Your task to perform on an android device: Go to location settings Image 0: 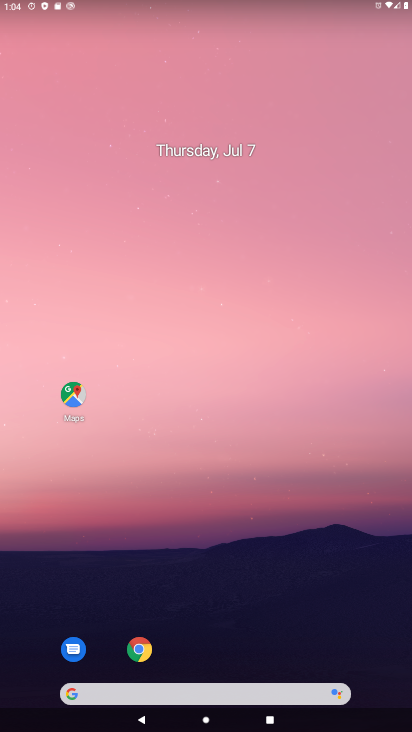
Step 0: click (126, 72)
Your task to perform on an android device: Go to location settings Image 1: 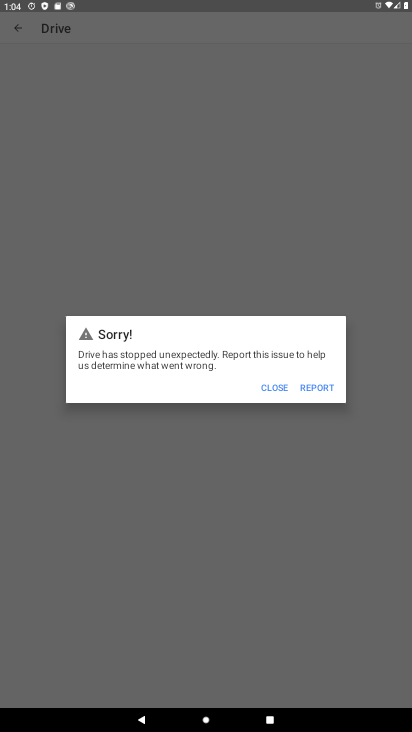
Step 1: click (277, 384)
Your task to perform on an android device: Go to location settings Image 2: 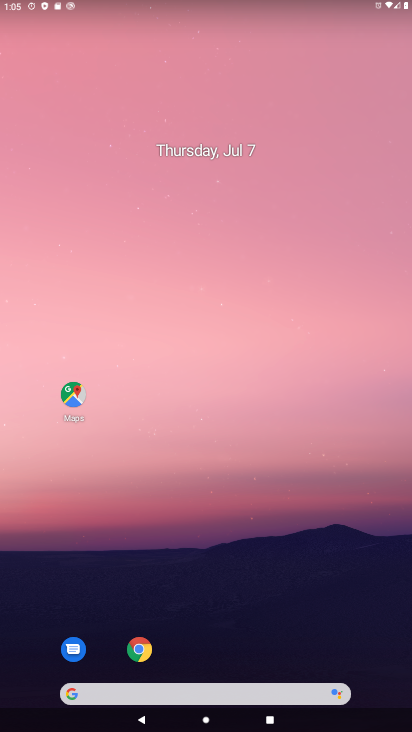
Step 2: drag from (223, 663) to (134, 261)
Your task to perform on an android device: Go to location settings Image 3: 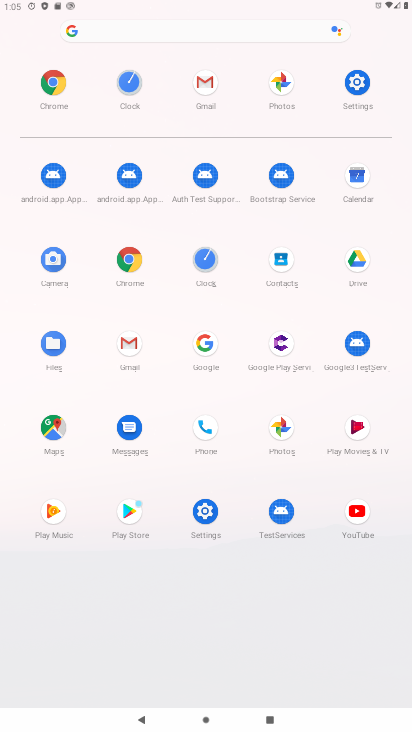
Step 3: click (195, 516)
Your task to perform on an android device: Go to location settings Image 4: 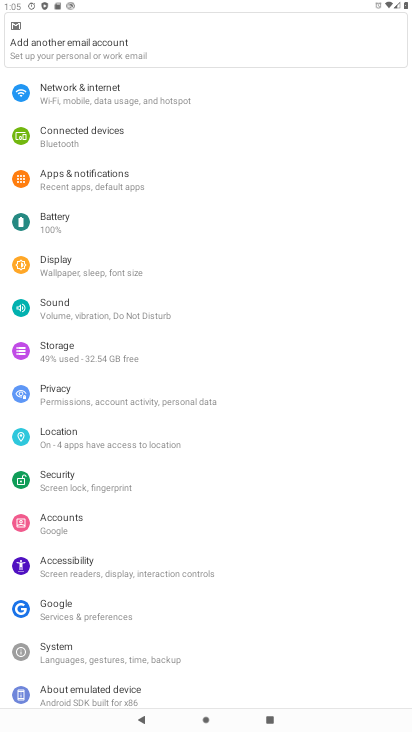
Step 4: click (76, 439)
Your task to perform on an android device: Go to location settings Image 5: 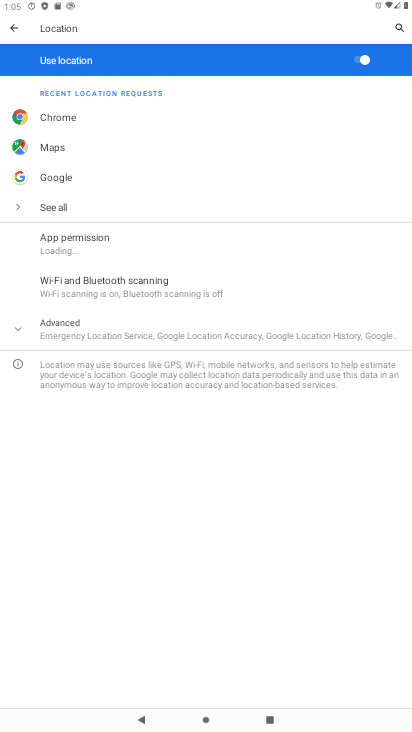
Step 5: click (52, 315)
Your task to perform on an android device: Go to location settings Image 6: 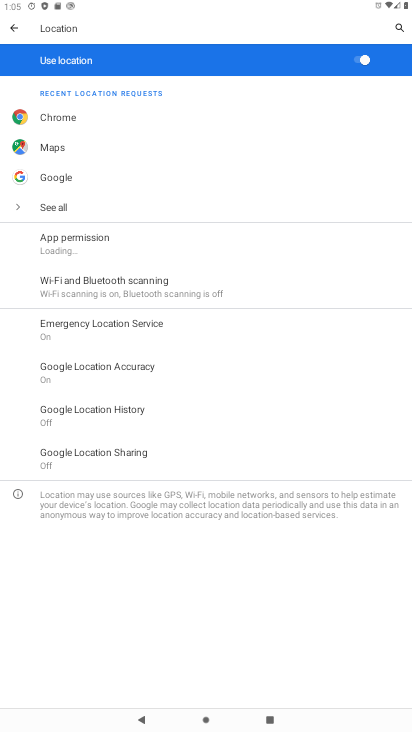
Step 6: task complete